Your task to perform on an android device: delete the emails in spam in the gmail app Image 0: 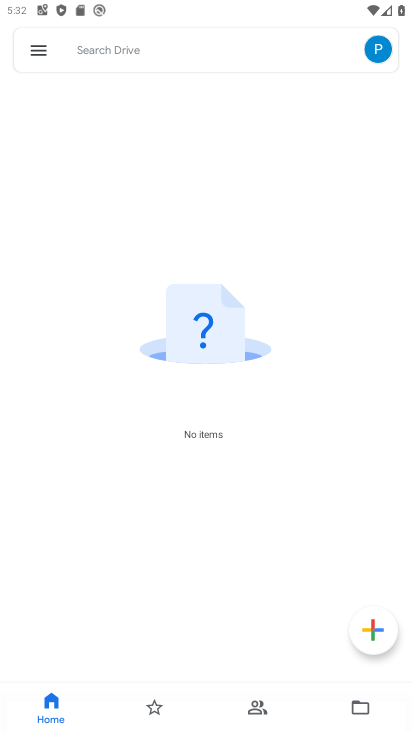
Step 0: press home button
Your task to perform on an android device: delete the emails in spam in the gmail app Image 1: 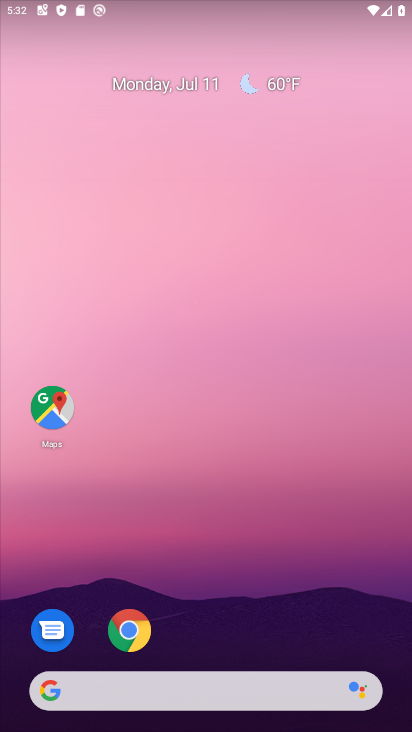
Step 1: drag from (177, 524) to (158, 70)
Your task to perform on an android device: delete the emails in spam in the gmail app Image 2: 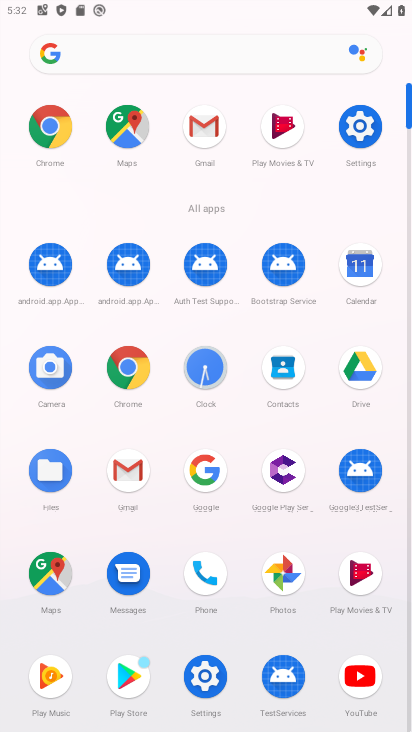
Step 2: click (198, 133)
Your task to perform on an android device: delete the emails in spam in the gmail app Image 3: 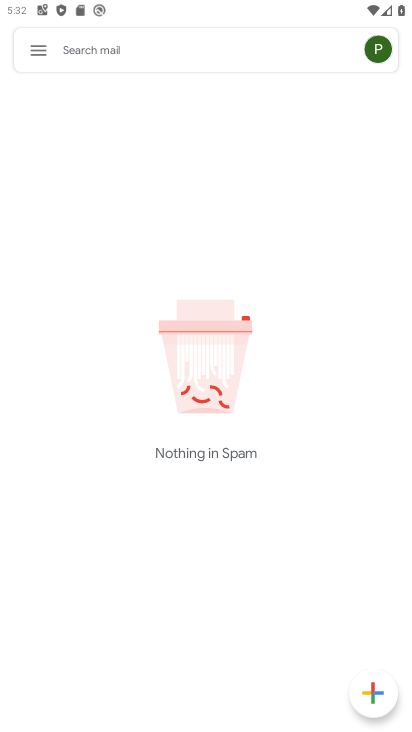
Step 3: click (34, 53)
Your task to perform on an android device: delete the emails in spam in the gmail app Image 4: 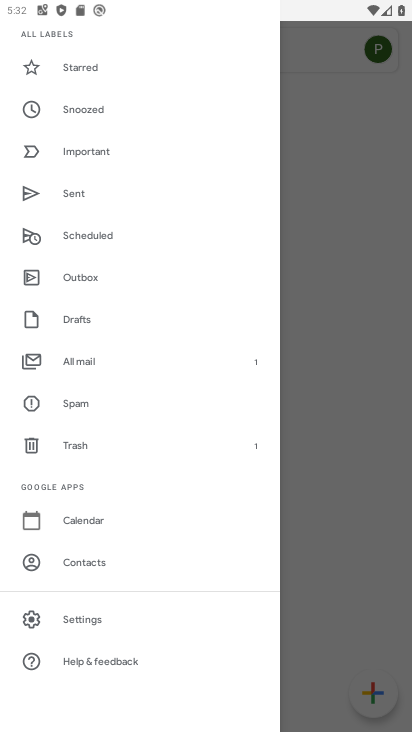
Step 4: click (80, 412)
Your task to perform on an android device: delete the emails in spam in the gmail app Image 5: 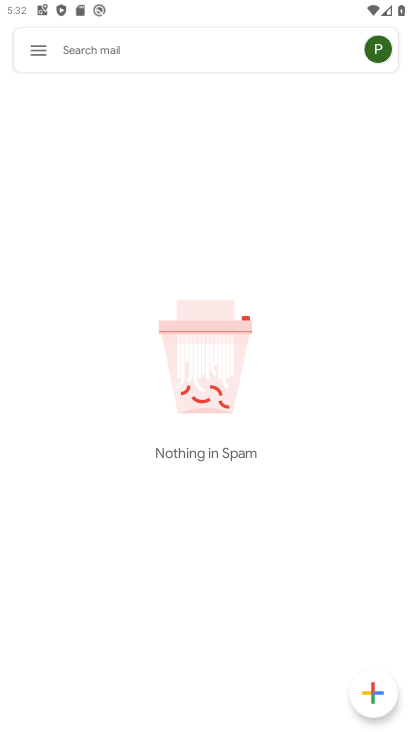
Step 5: task complete